Your task to perform on an android device: turn pop-ups off in chrome Image 0: 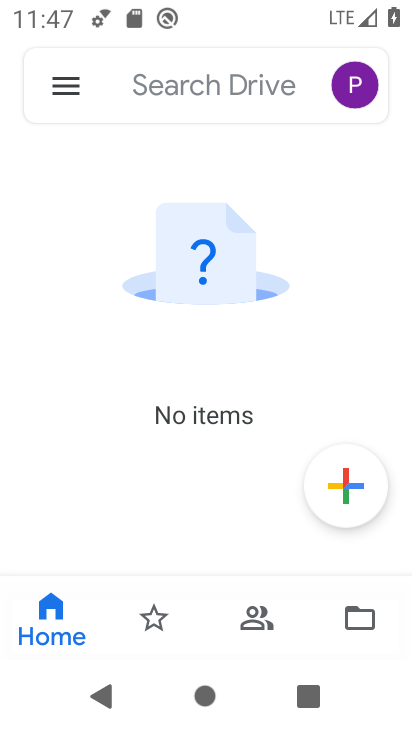
Step 0: press home button
Your task to perform on an android device: turn pop-ups off in chrome Image 1: 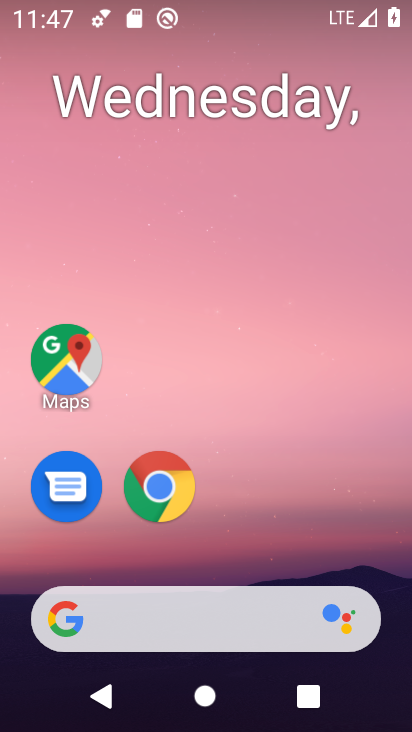
Step 1: drag from (362, 538) to (375, 92)
Your task to perform on an android device: turn pop-ups off in chrome Image 2: 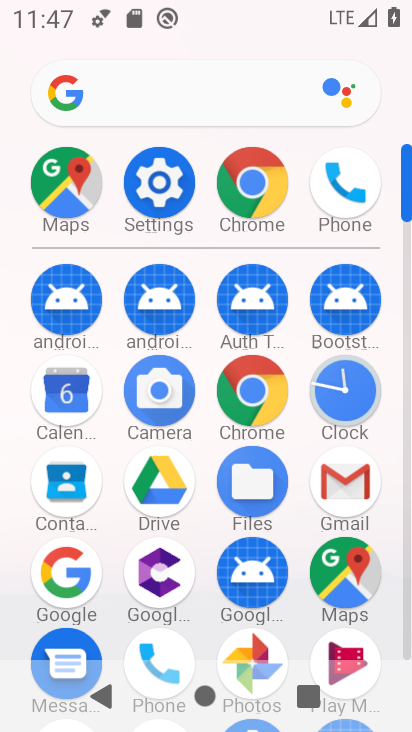
Step 2: click (284, 404)
Your task to perform on an android device: turn pop-ups off in chrome Image 3: 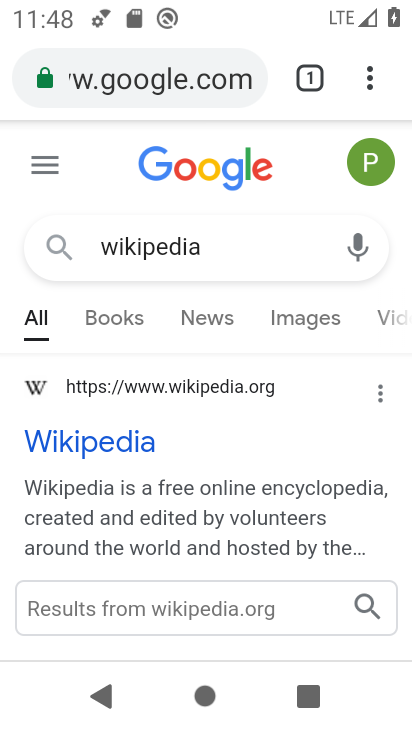
Step 3: click (373, 84)
Your task to perform on an android device: turn pop-ups off in chrome Image 4: 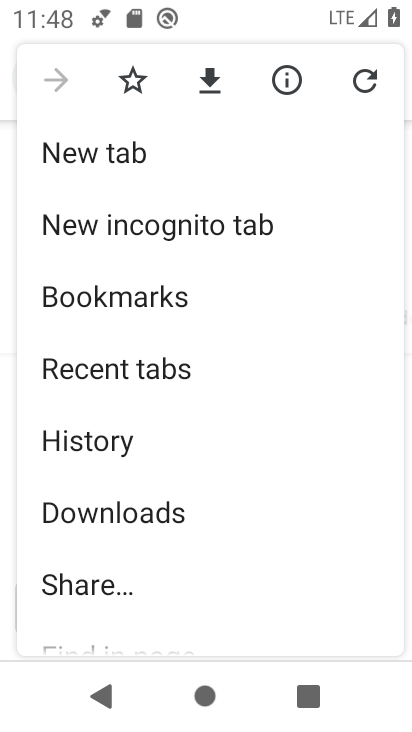
Step 4: drag from (329, 332) to (332, 241)
Your task to perform on an android device: turn pop-ups off in chrome Image 5: 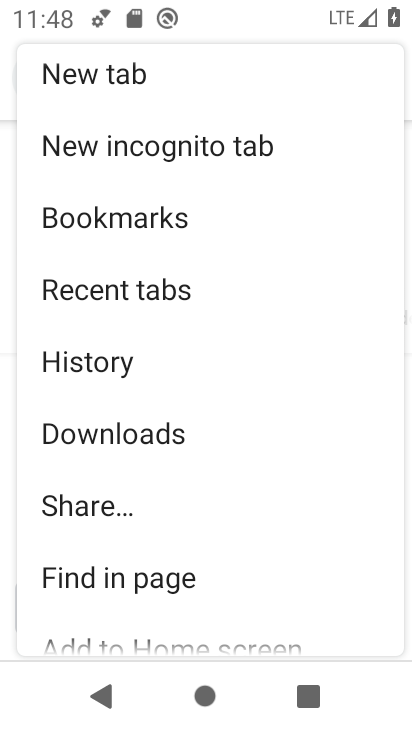
Step 5: drag from (324, 480) to (326, 364)
Your task to perform on an android device: turn pop-ups off in chrome Image 6: 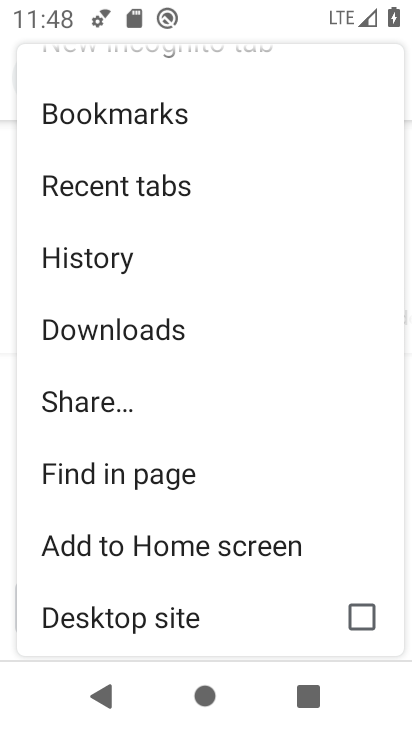
Step 6: drag from (323, 518) to (319, 337)
Your task to perform on an android device: turn pop-ups off in chrome Image 7: 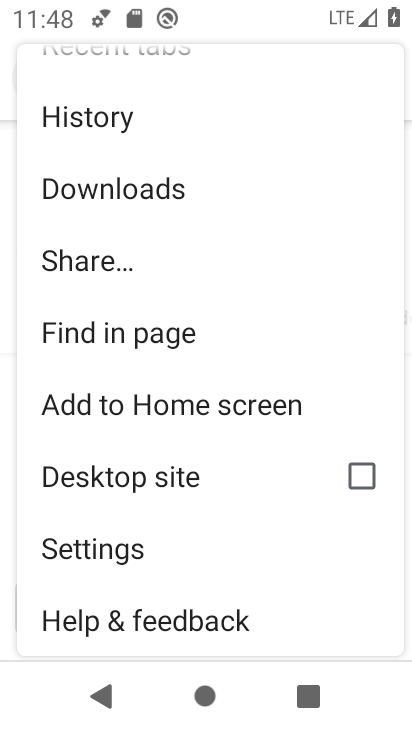
Step 7: click (182, 561)
Your task to perform on an android device: turn pop-ups off in chrome Image 8: 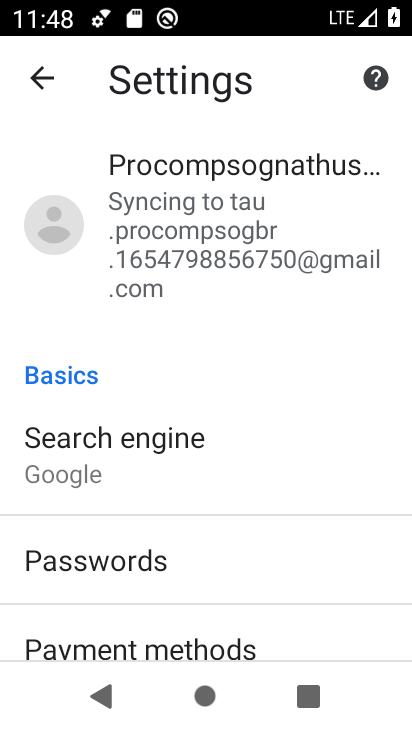
Step 8: drag from (256, 548) to (287, 451)
Your task to perform on an android device: turn pop-ups off in chrome Image 9: 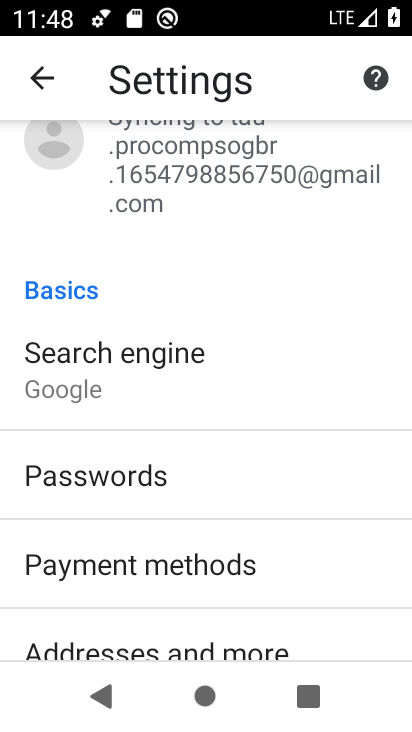
Step 9: drag from (350, 592) to (369, 499)
Your task to perform on an android device: turn pop-ups off in chrome Image 10: 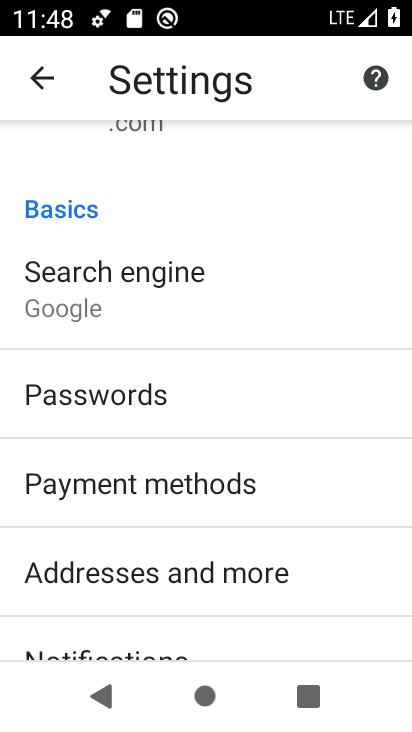
Step 10: drag from (365, 592) to (378, 453)
Your task to perform on an android device: turn pop-ups off in chrome Image 11: 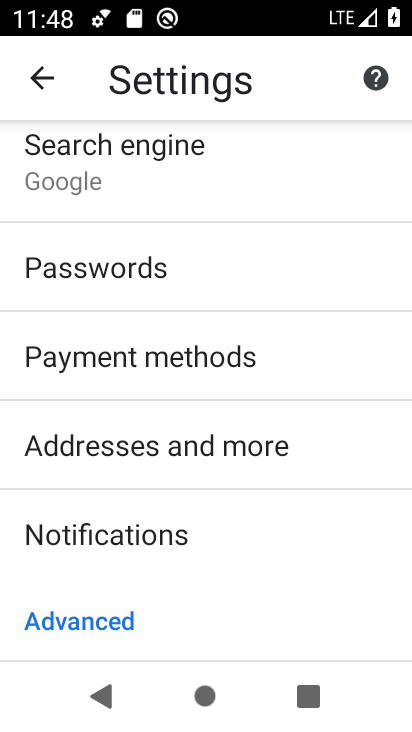
Step 11: drag from (348, 590) to (367, 466)
Your task to perform on an android device: turn pop-ups off in chrome Image 12: 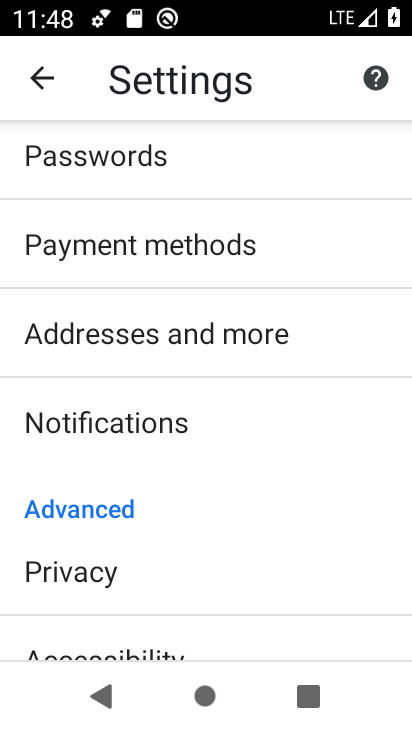
Step 12: drag from (352, 573) to (366, 464)
Your task to perform on an android device: turn pop-ups off in chrome Image 13: 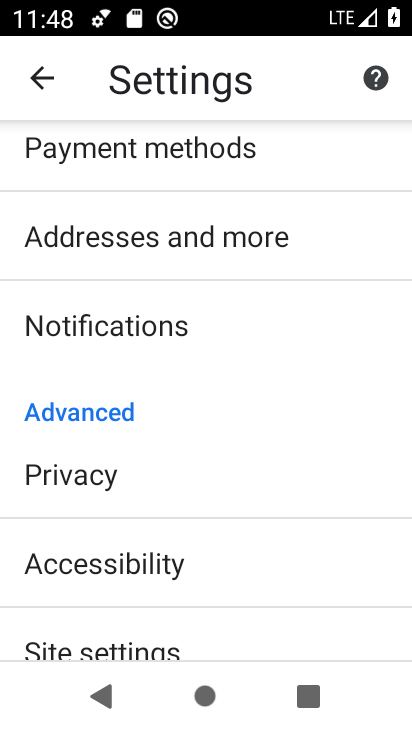
Step 13: drag from (348, 582) to (350, 458)
Your task to perform on an android device: turn pop-ups off in chrome Image 14: 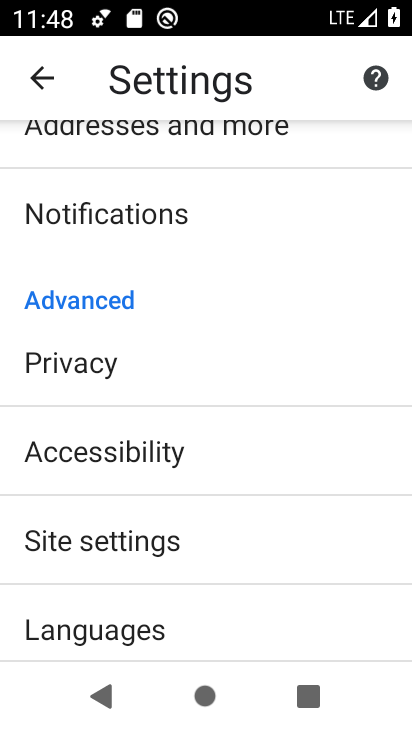
Step 14: click (330, 551)
Your task to perform on an android device: turn pop-ups off in chrome Image 15: 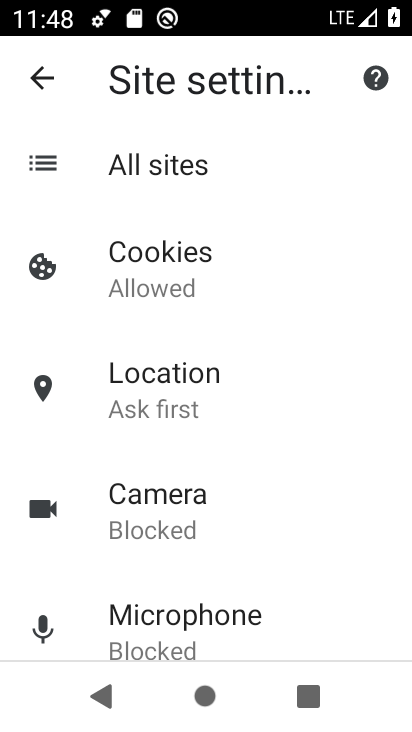
Step 15: drag from (335, 561) to (340, 466)
Your task to perform on an android device: turn pop-ups off in chrome Image 16: 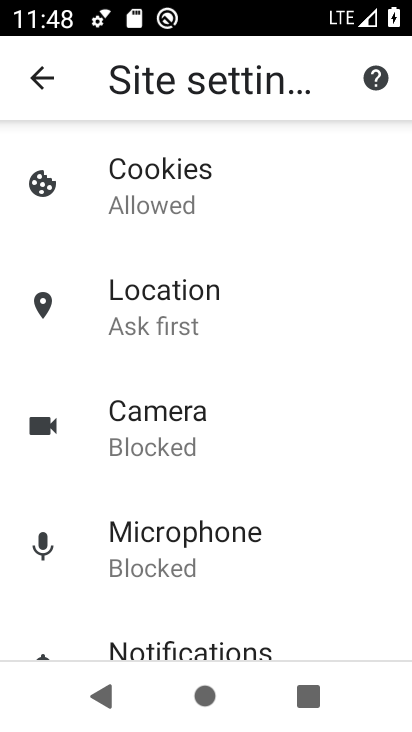
Step 16: drag from (351, 582) to (352, 485)
Your task to perform on an android device: turn pop-ups off in chrome Image 17: 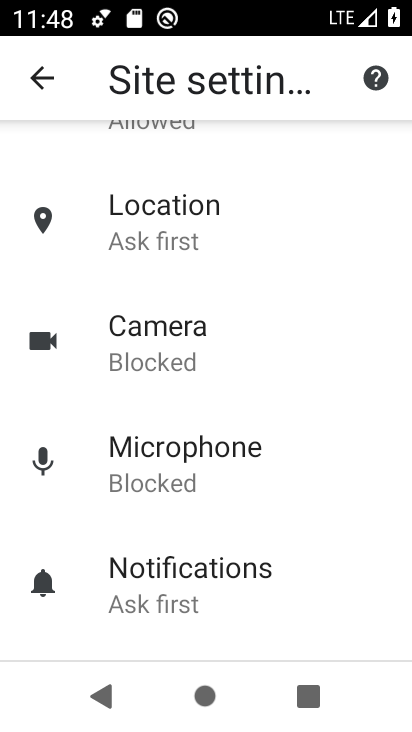
Step 17: drag from (365, 535) to (369, 487)
Your task to perform on an android device: turn pop-ups off in chrome Image 18: 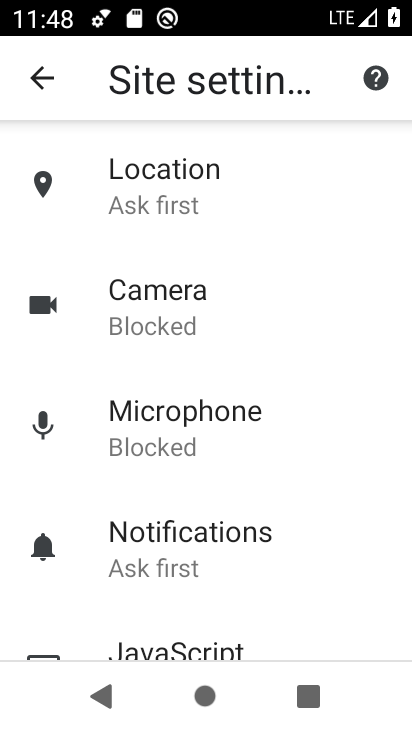
Step 18: drag from (360, 559) to (364, 410)
Your task to perform on an android device: turn pop-ups off in chrome Image 19: 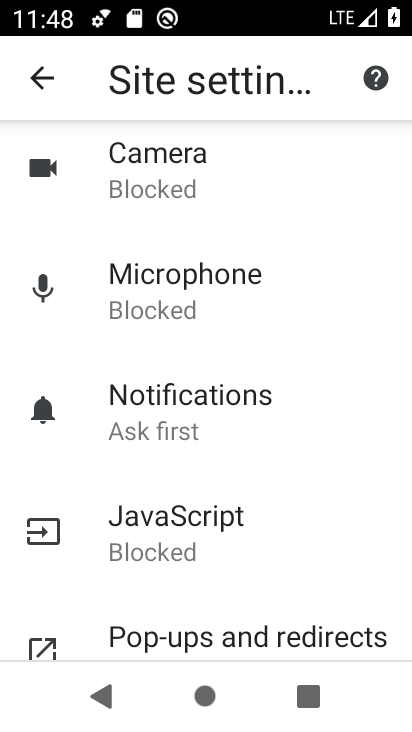
Step 19: drag from (348, 534) to (352, 483)
Your task to perform on an android device: turn pop-ups off in chrome Image 20: 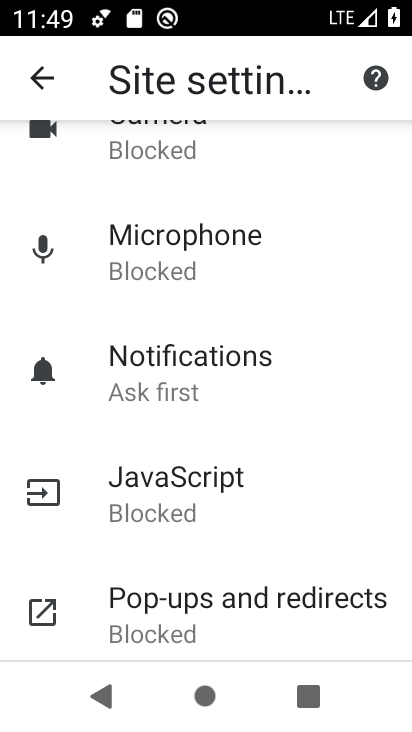
Step 20: click (272, 617)
Your task to perform on an android device: turn pop-ups off in chrome Image 21: 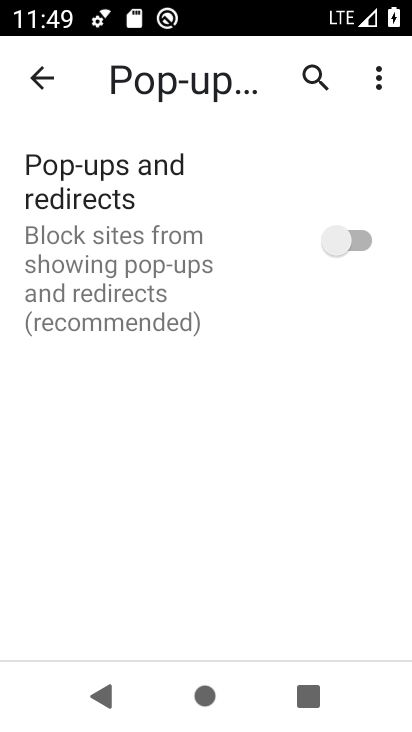
Step 21: task complete